Your task to perform on an android device: open device folders in google photos Image 0: 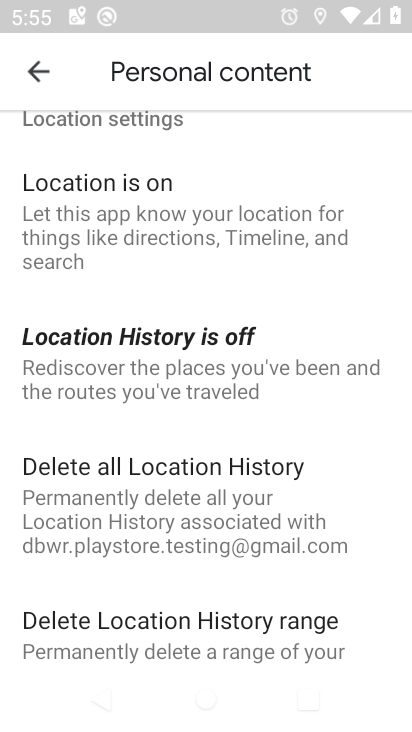
Step 0: press home button
Your task to perform on an android device: open device folders in google photos Image 1: 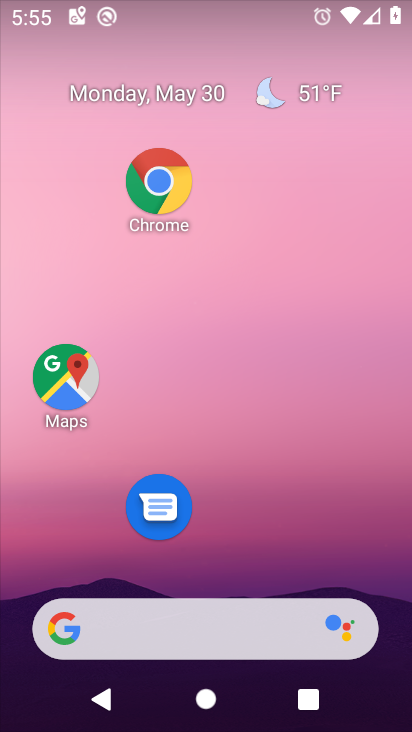
Step 1: drag from (329, 511) to (346, 40)
Your task to perform on an android device: open device folders in google photos Image 2: 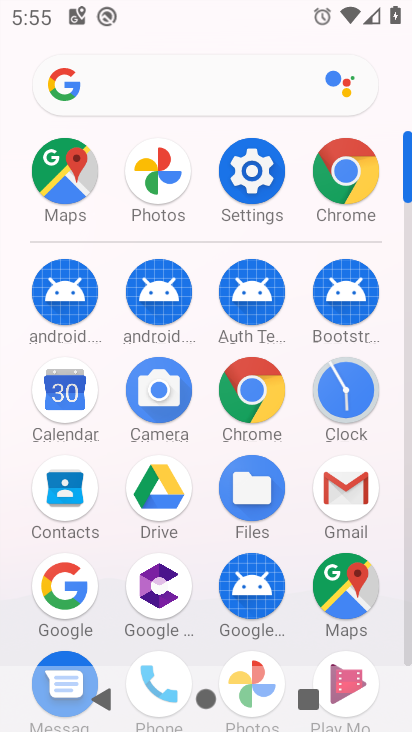
Step 2: click (403, 616)
Your task to perform on an android device: open device folders in google photos Image 3: 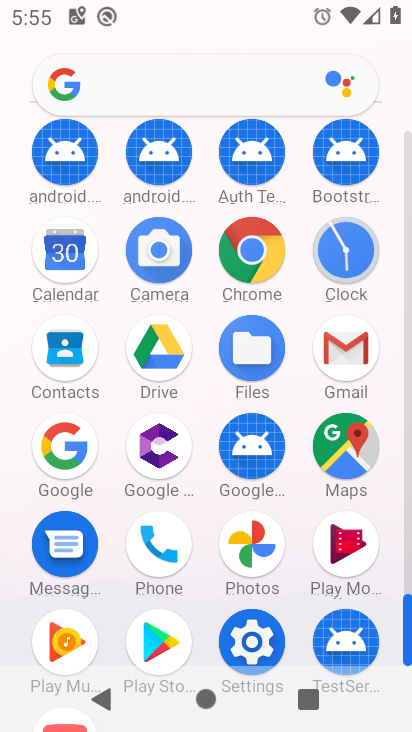
Step 3: click (270, 543)
Your task to perform on an android device: open device folders in google photos Image 4: 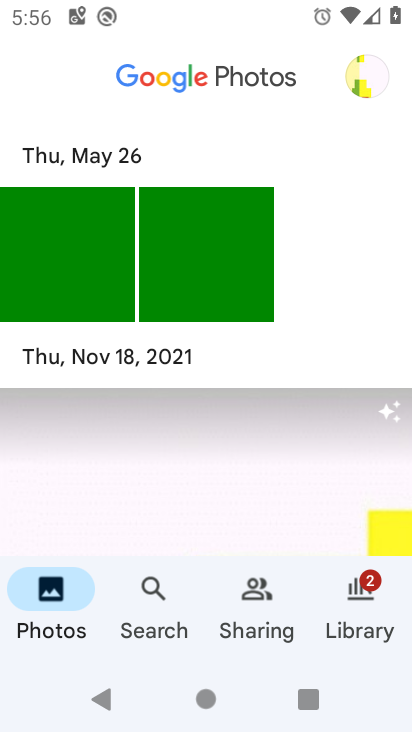
Step 4: task complete